Your task to perform on an android device: Go to Android settings Image 0: 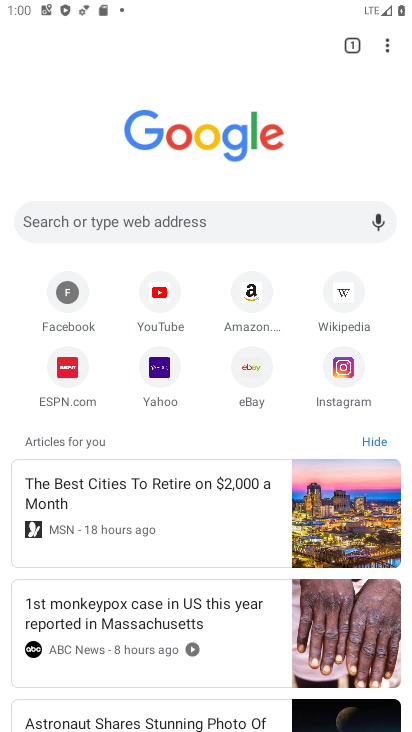
Step 0: press home button
Your task to perform on an android device: Go to Android settings Image 1: 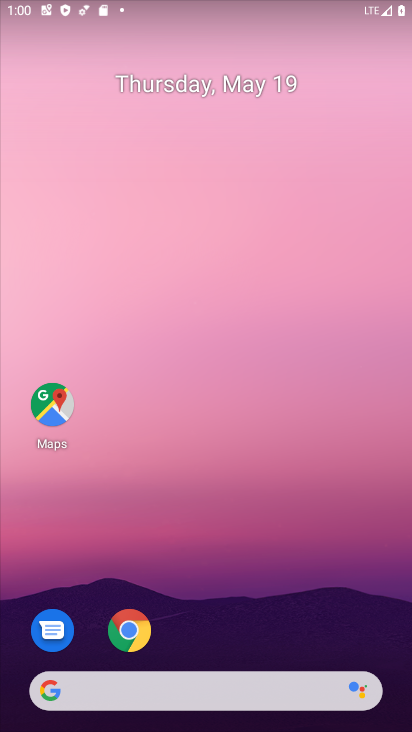
Step 1: drag from (204, 653) to (46, 13)
Your task to perform on an android device: Go to Android settings Image 2: 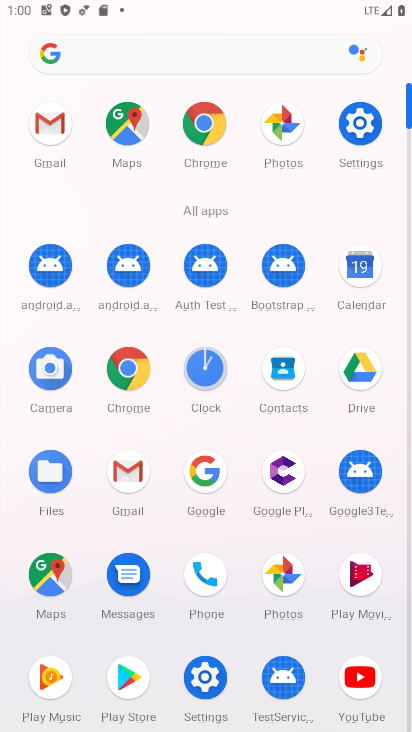
Step 2: click (369, 136)
Your task to perform on an android device: Go to Android settings Image 3: 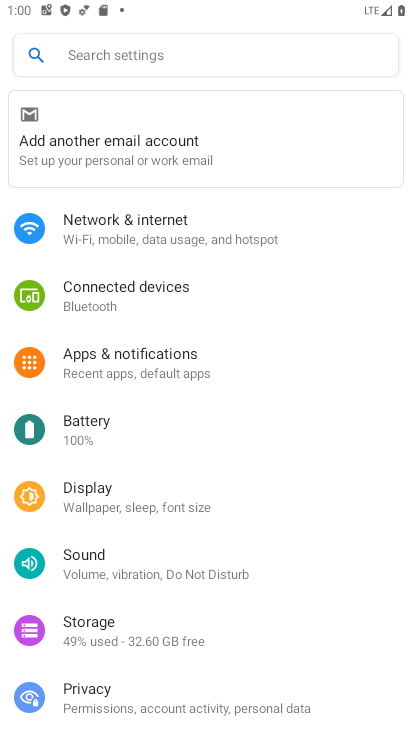
Step 3: task complete